Your task to perform on an android device: turn on data saver in the chrome app Image 0: 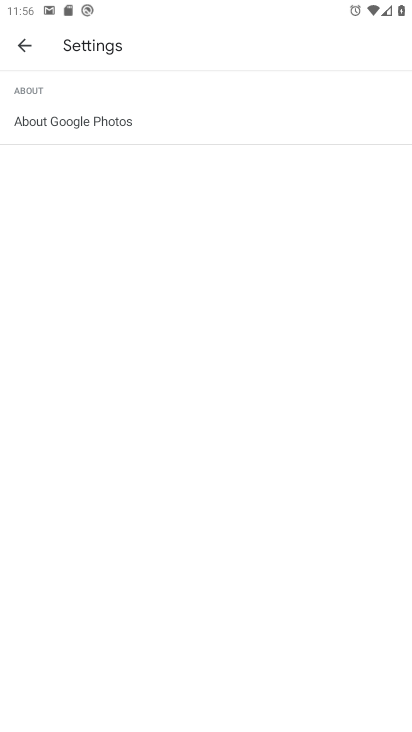
Step 0: press home button
Your task to perform on an android device: turn on data saver in the chrome app Image 1: 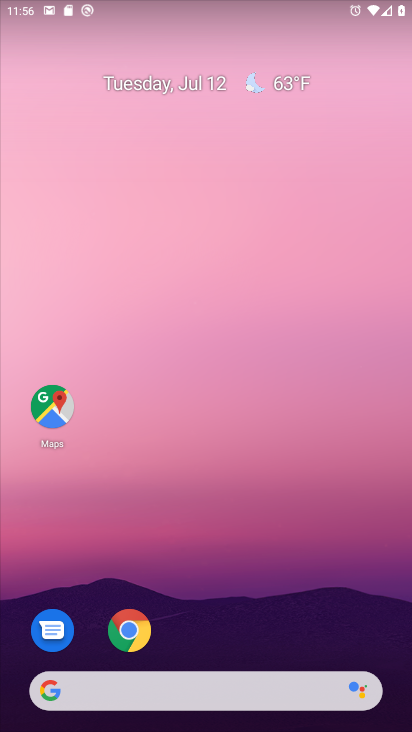
Step 1: click (144, 647)
Your task to perform on an android device: turn on data saver in the chrome app Image 2: 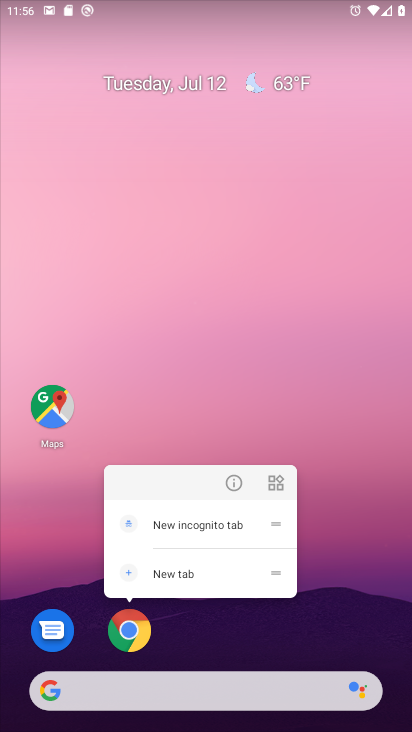
Step 2: click (139, 621)
Your task to perform on an android device: turn on data saver in the chrome app Image 3: 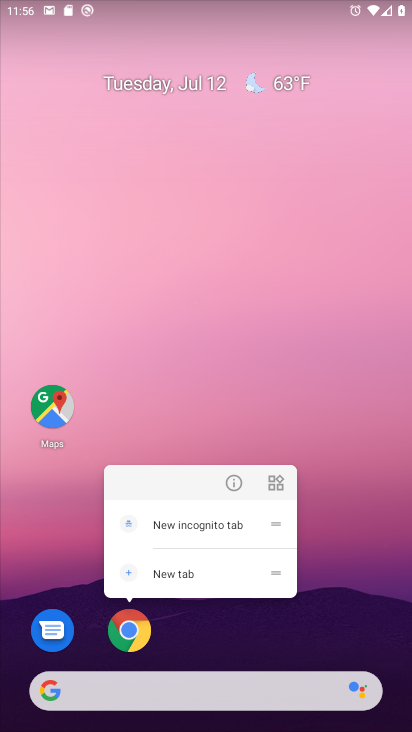
Step 3: click (134, 630)
Your task to perform on an android device: turn on data saver in the chrome app Image 4: 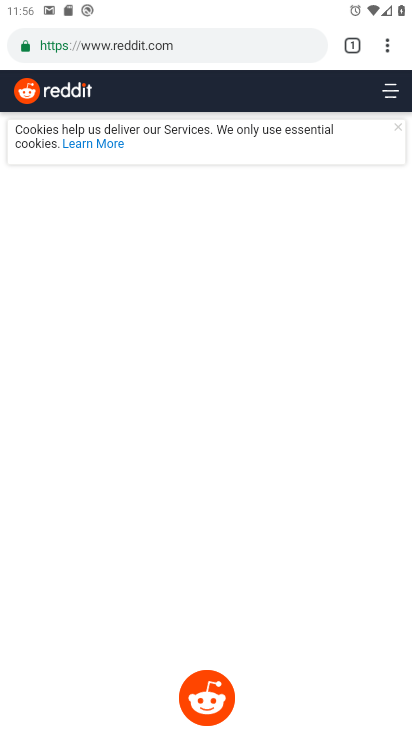
Step 4: drag from (392, 40) to (244, 541)
Your task to perform on an android device: turn on data saver in the chrome app Image 5: 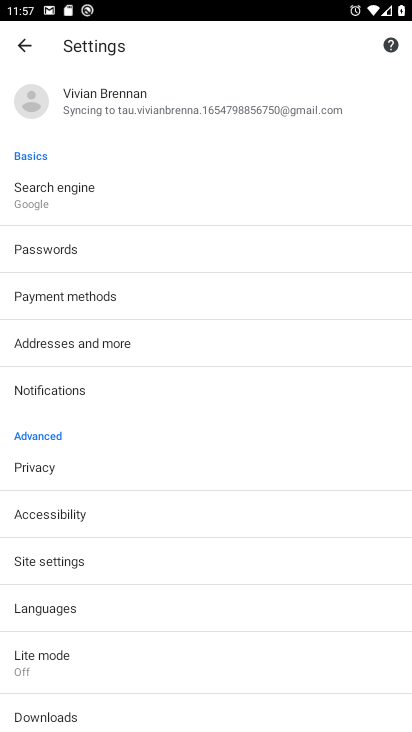
Step 5: click (76, 660)
Your task to perform on an android device: turn on data saver in the chrome app Image 6: 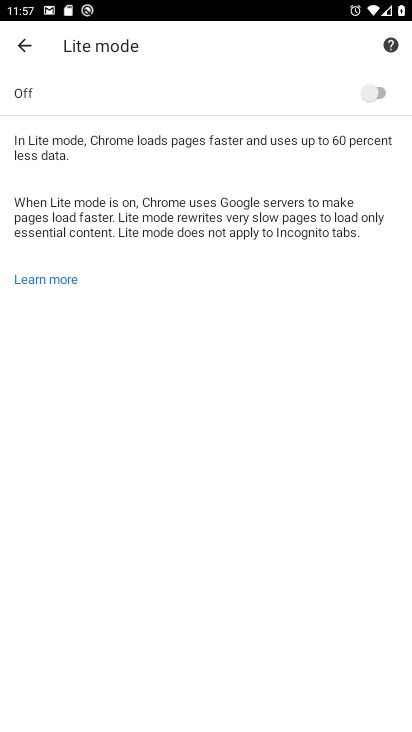
Step 6: click (370, 90)
Your task to perform on an android device: turn on data saver in the chrome app Image 7: 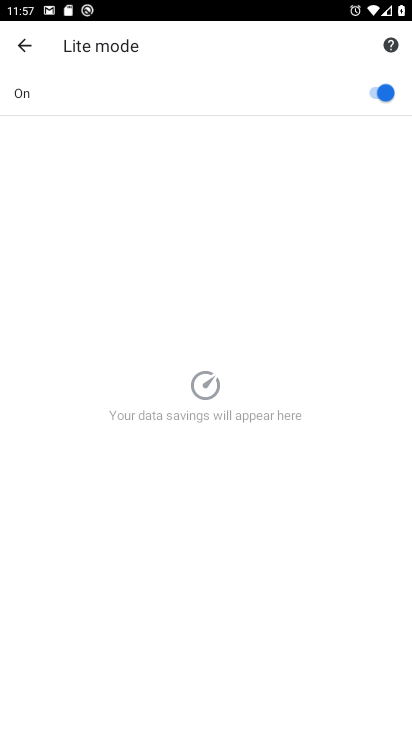
Step 7: task complete